Your task to perform on an android device: turn on translation in the chrome app Image 0: 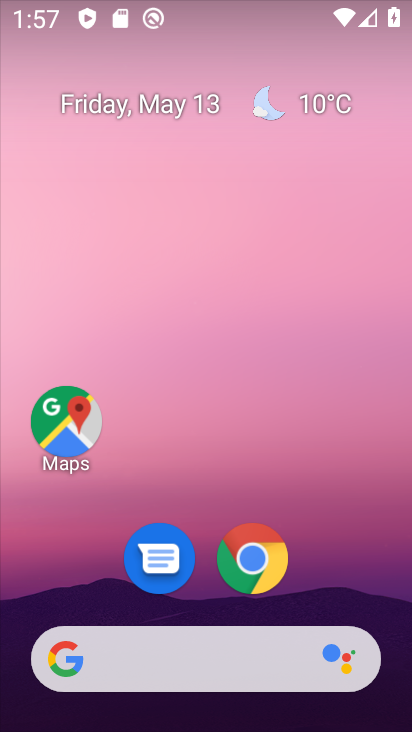
Step 0: click (260, 553)
Your task to perform on an android device: turn on translation in the chrome app Image 1: 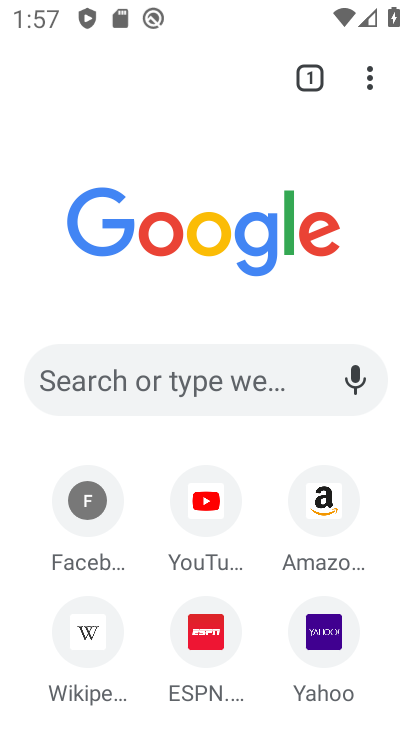
Step 1: drag from (368, 78) to (151, 629)
Your task to perform on an android device: turn on translation in the chrome app Image 2: 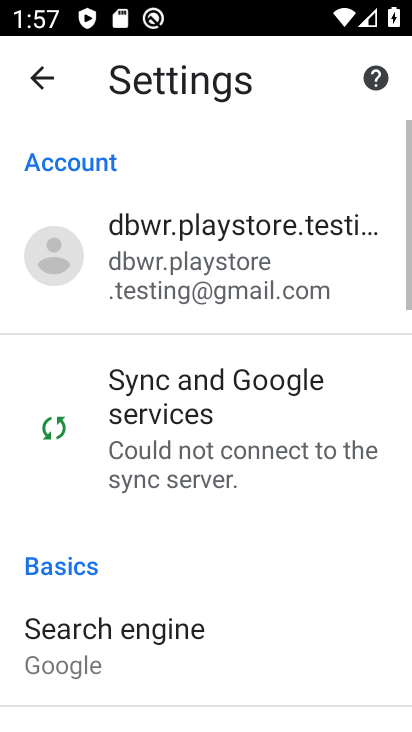
Step 2: drag from (228, 616) to (264, 312)
Your task to perform on an android device: turn on translation in the chrome app Image 3: 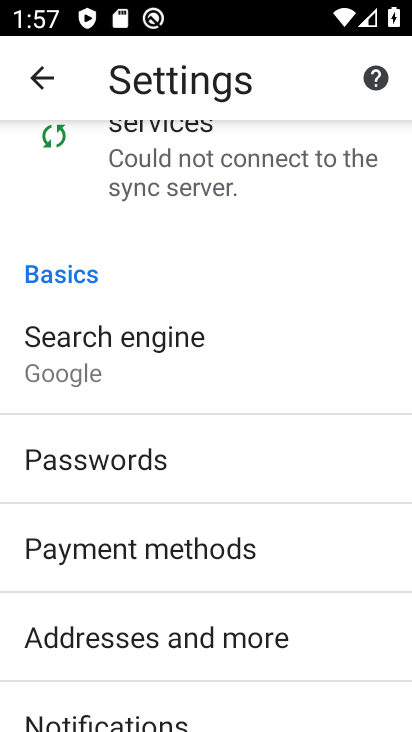
Step 3: drag from (228, 541) to (218, 323)
Your task to perform on an android device: turn on translation in the chrome app Image 4: 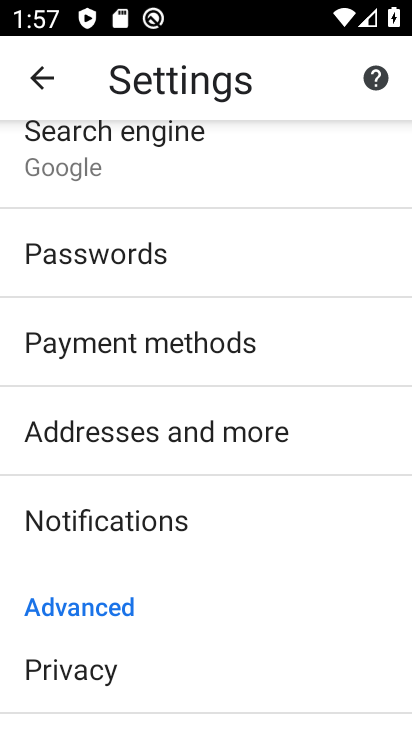
Step 4: drag from (181, 621) to (202, 331)
Your task to perform on an android device: turn on translation in the chrome app Image 5: 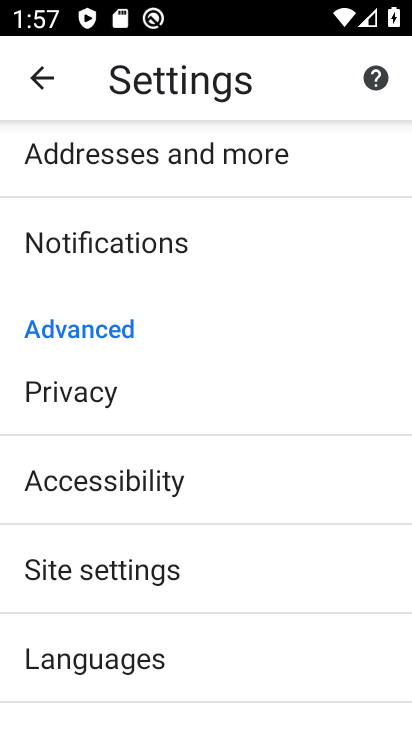
Step 5: click (180, 659)
Your task to perform on an android device: turn on translation in the chrome app Image 6: 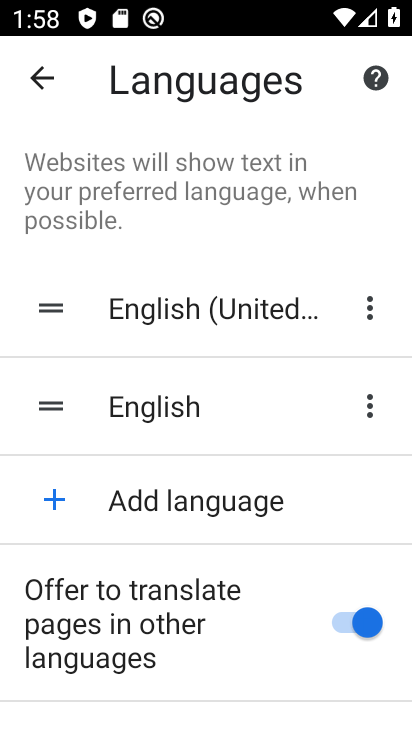
Step 6: drag from (210, 555) to (233, 262)
Your task to perform on an android device: turn on translation in the chrome app Image 7: 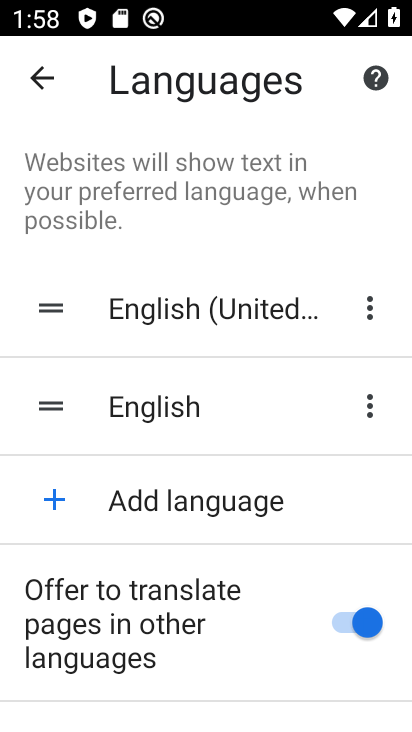
Step 7: drag from (204, 531) to (248, 279)
Your task to perform on an android device: turn on translation in the chrome app Image 8: 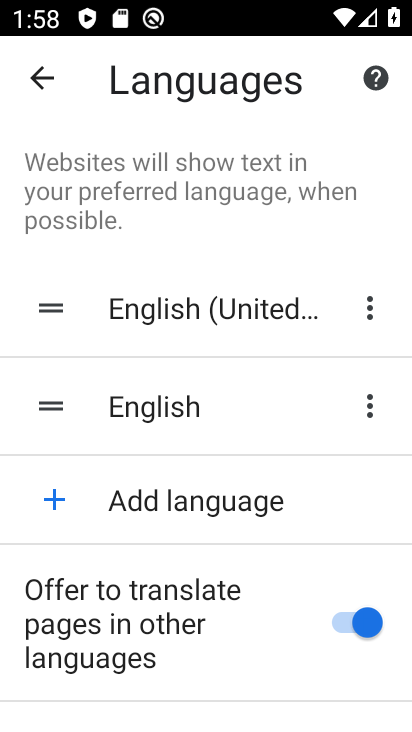
Step 8: click (342, 621)
Your task to perform on an android device: turn on translation in the chrome app Image 9: 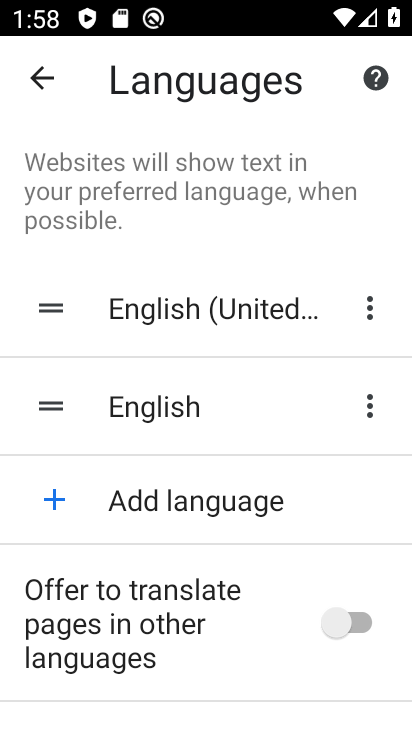
Step 9: click (357, 616)
Your task to perform on an android device: turn on translation in the chrome app Image 10: 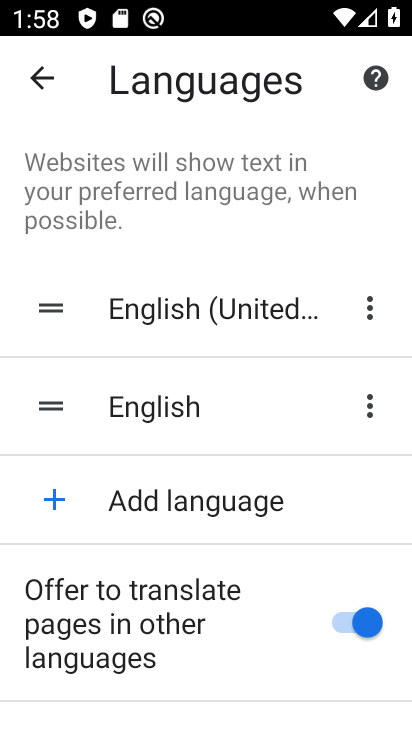
Step 10: task complete